Your task to perform on an android device: see tabs open on other devices in the chrome app Image 0: 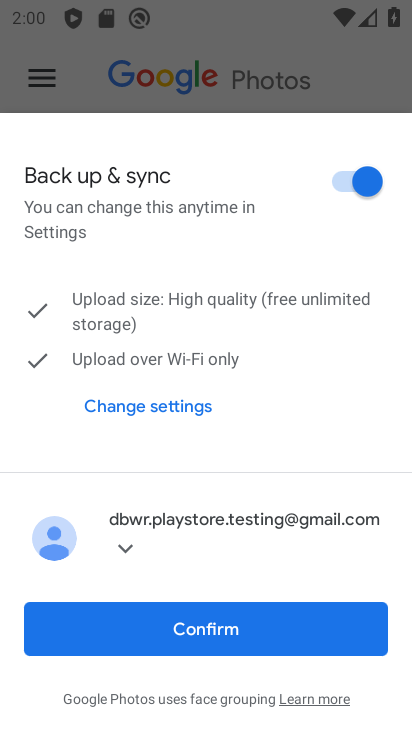
Step 0: press back button
Your task to perform on an android device: see tabs open on other devices in the chrome app Image 1: 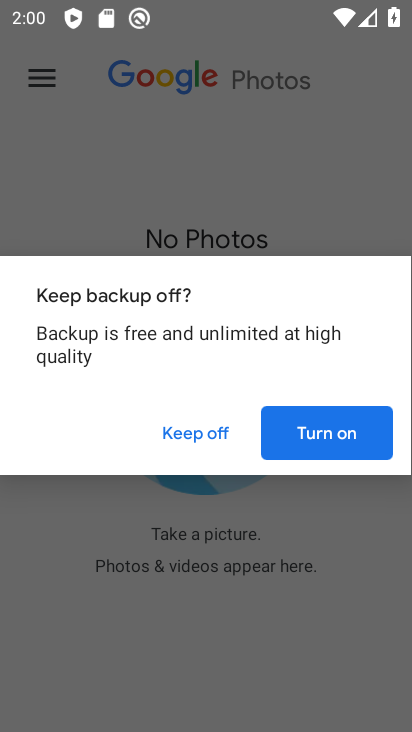
Step 1: press home button
Your task to perform on an android device: see tabs open on other devices in the chrome app Image 2: 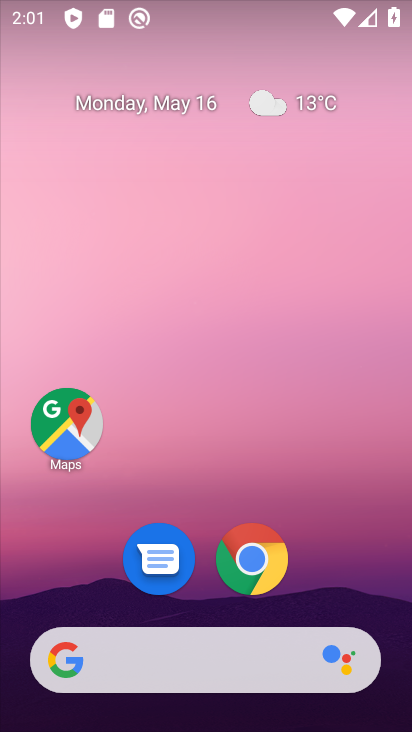
Step 2: click (257, 550)
Your task to perform on an android device: see tabs open on other devices in the chrome app Image 3: 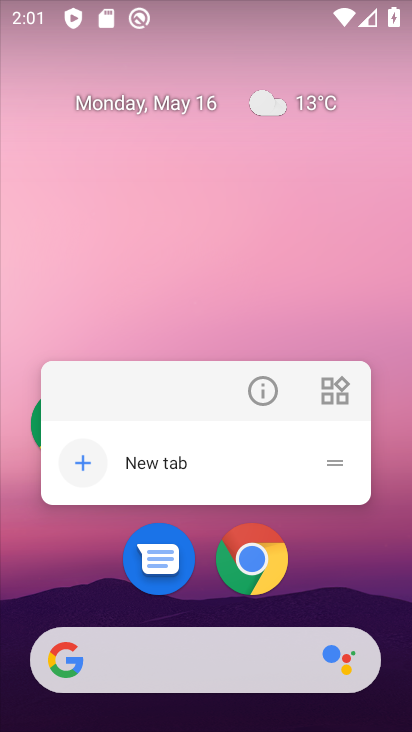
Step 3: click (255, 558)
Your task to perform on an android device: see tabs open on other devices in the chrome app Image 4: 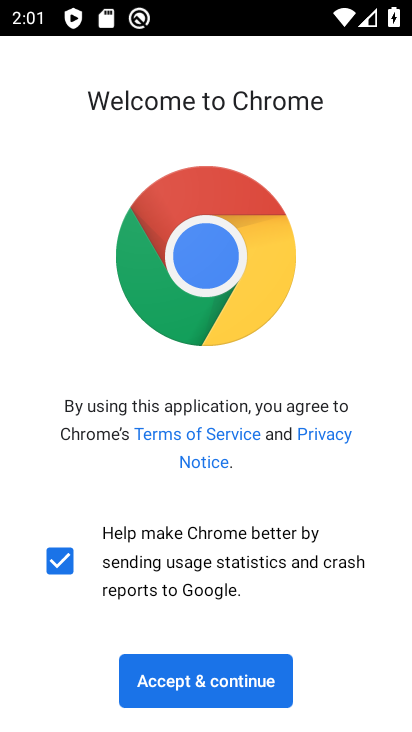
Step 4: click (200, 685)
Your task to perform on an android device: see tabs open on other devices in the chrome app Image 5: 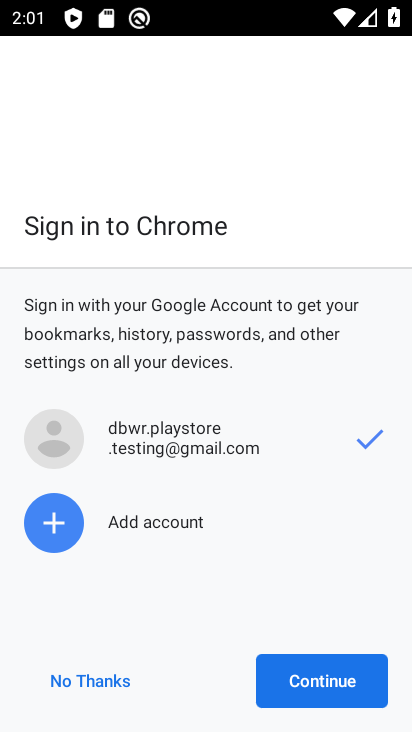
Step 5: click (314, 669)
Your task to perform on an android device: see tabs open on other devices in the chrome app Image 6: 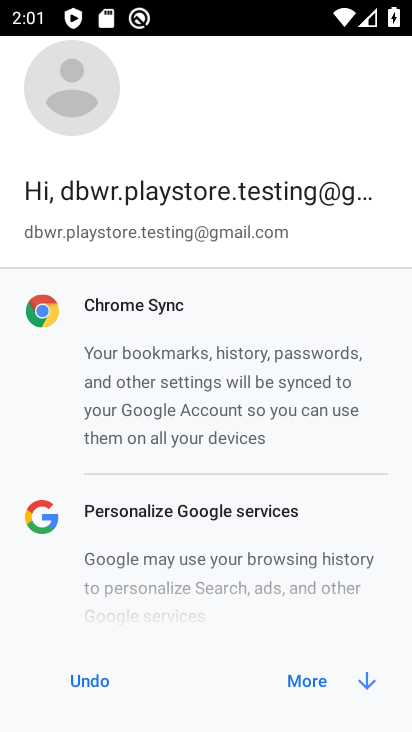
Step 6: click (335, 678)
Your task to perform on an android device: see tabs open on other devices in the chrome app Image 7: 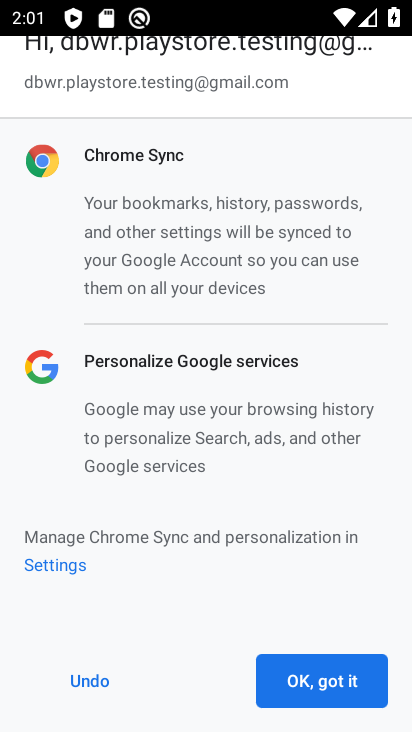
Step 7: click (315, 678)
Your task to perform on an android device: see tabs open on other devices in the chrome app Image 8: 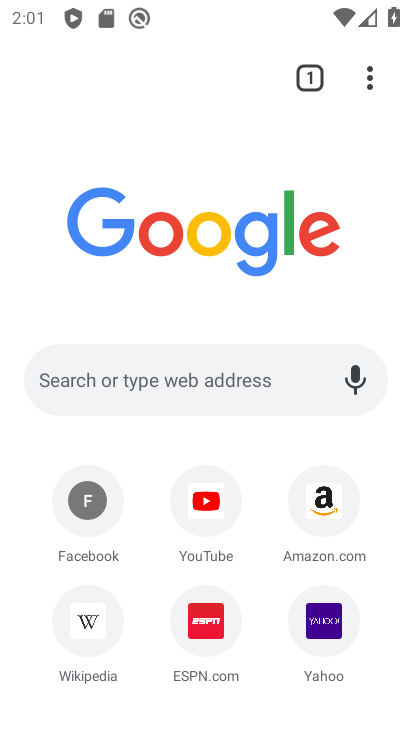
Step 8: click (371, 76)
Your task to perform on an android device: see tabs open on other devices in the chrome app Image 9: 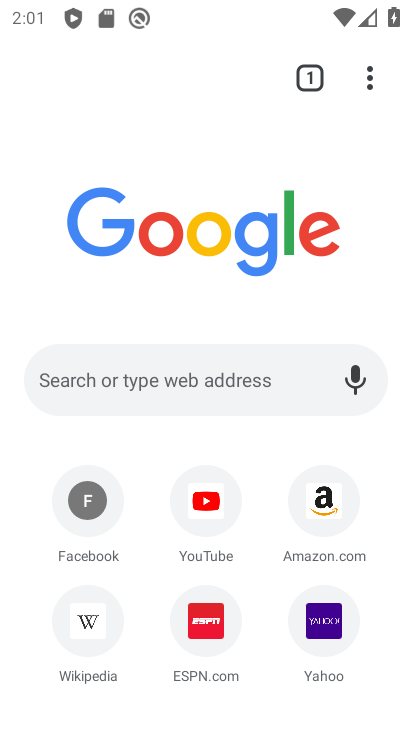
Step 9: task complete